Your task to perform on an android device: Look up the best rated bike seats on Target Image 0: 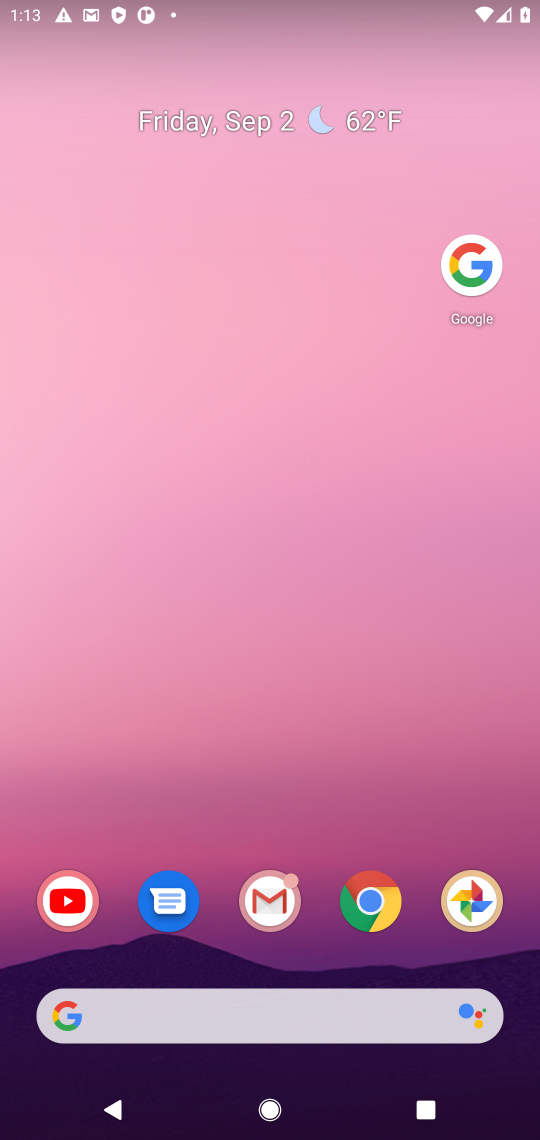
Step 0: click (267, 319)
Your task to perform on an android device: Look up the best rated bike seats on Target Image 1: 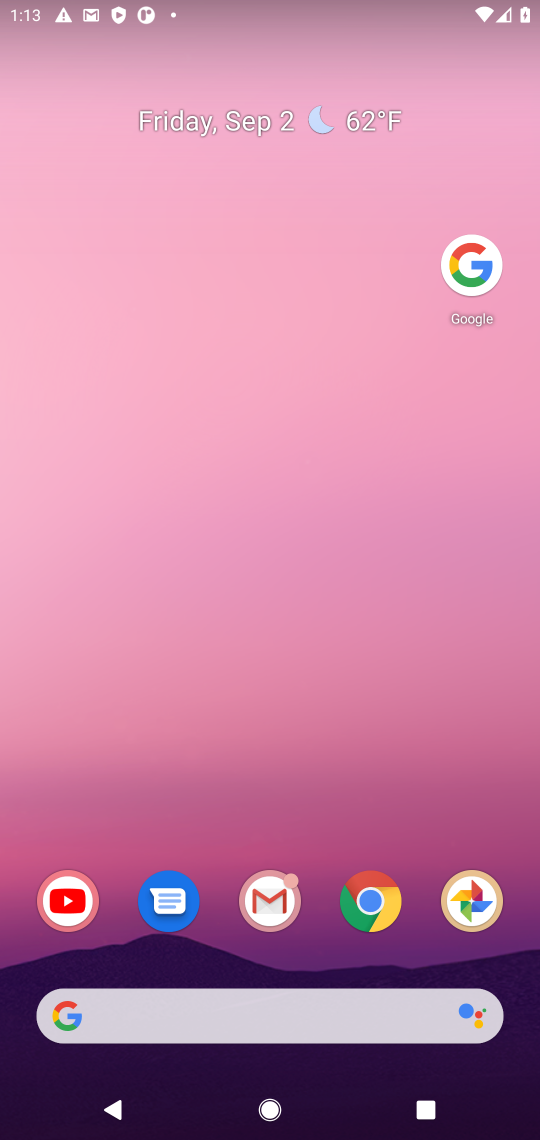
Step 1: click (479, 247)
Your task to perform on an android device: Look up the best rated bike seats on Target Image 2: 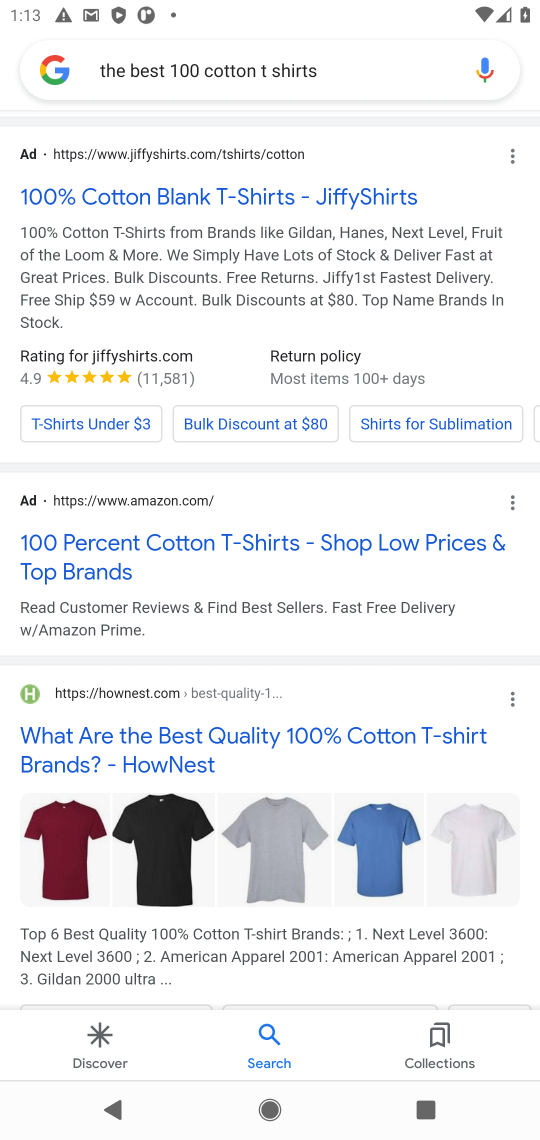
Step 2: click (375, 64)
Your task to perform on an android device: Look up the best rated bike seats on Target Image 3: 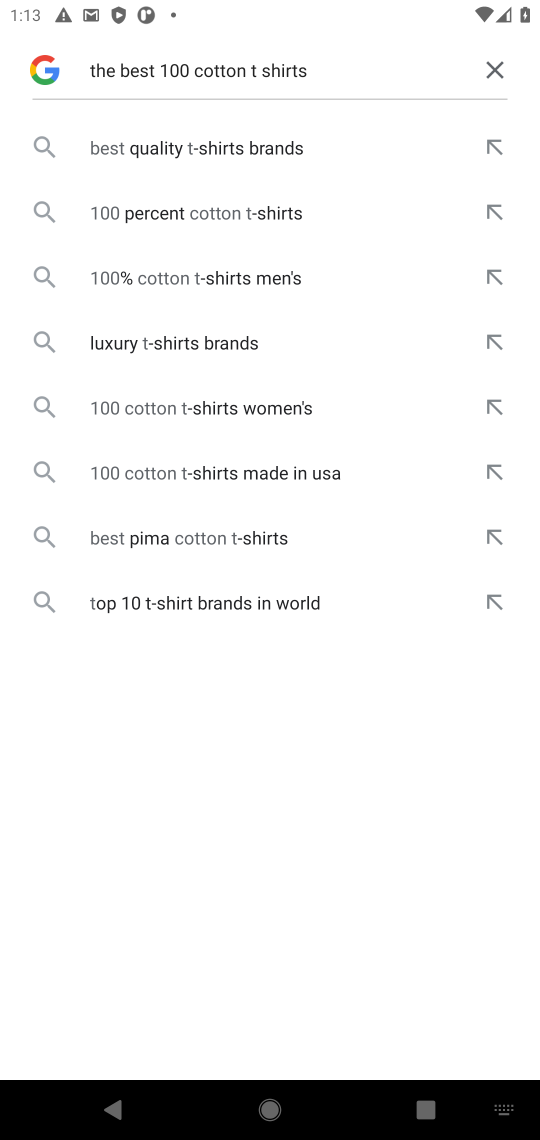
Step 3: click (513, 68)
Your task to perform on an android device: Look up the best rated bike seats on Target Image 4: 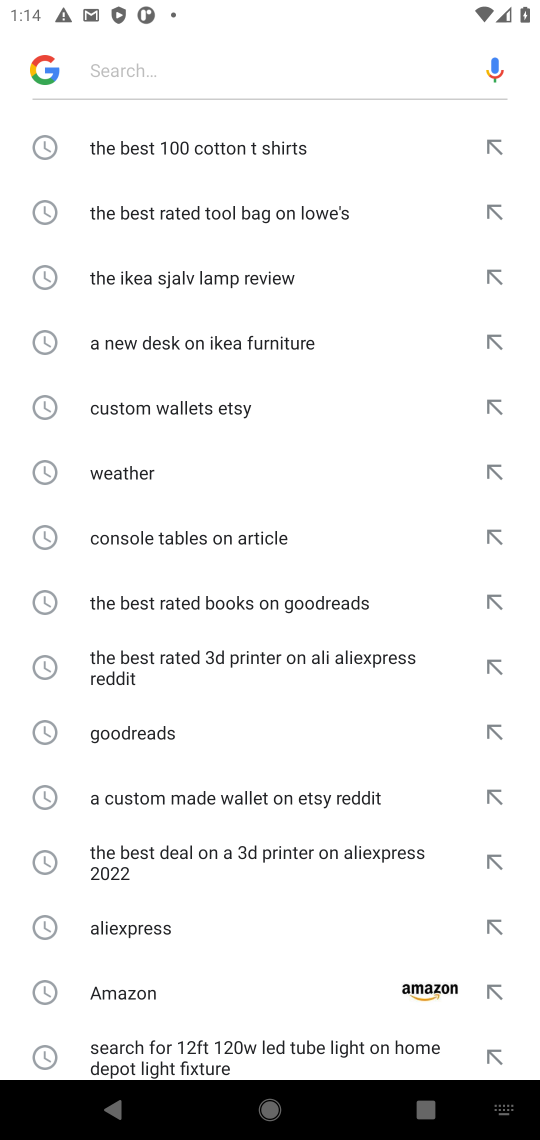
Step 4: click (310, 71)
Your task to perform on an android device: Look up the best rated bike seats on Target Image 5: 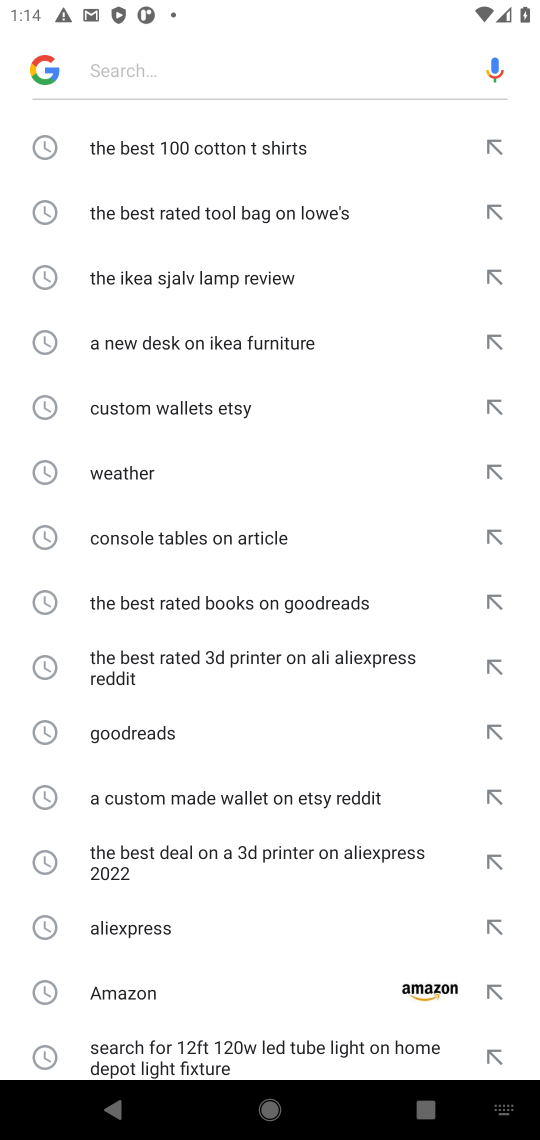
Step 5: type "the best rated bike seats on Target "
Your task to perform on an android device: Look up the best rated bike seats on Target Image 6: 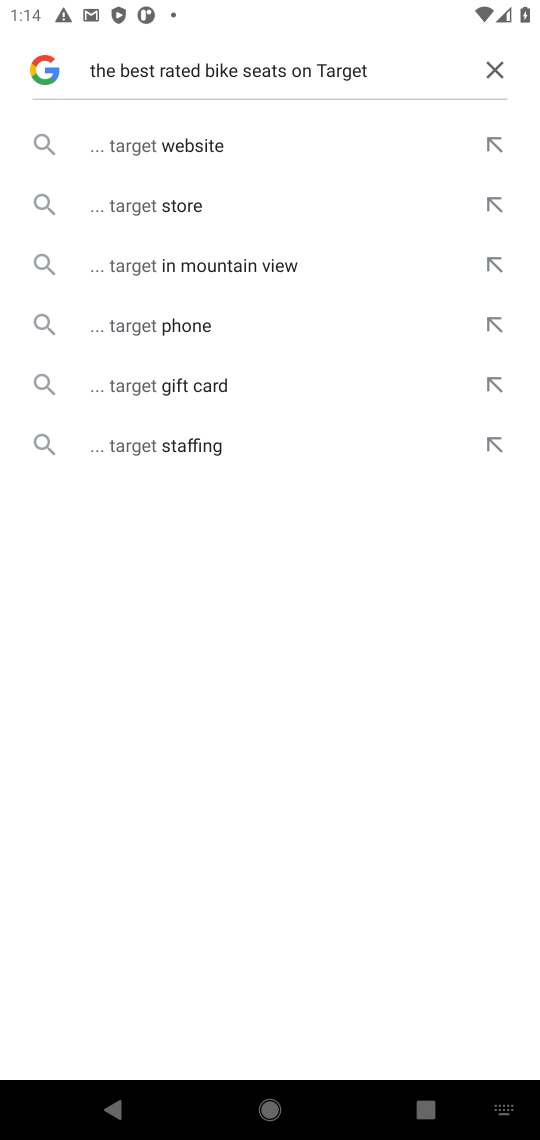
Step 6: click (196, 215)
Your task to perform on an android device: Look up the best rated bike seats on Target Image 7: 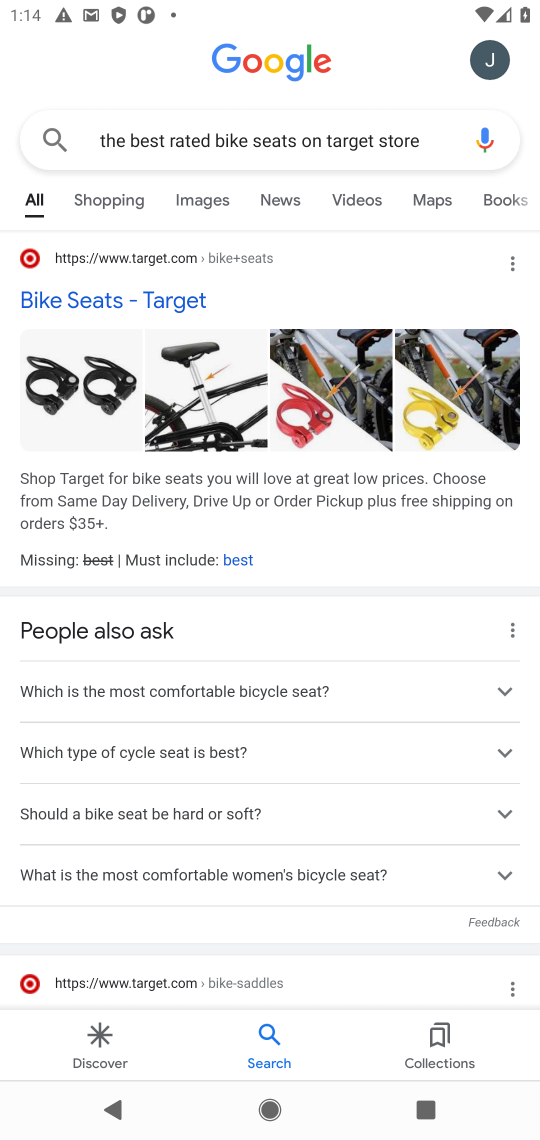
Step 7: drag from (185, 901) to (194, 786)
Your task to perform on an android device: Look up the best rated bike seats on Target Image 8: 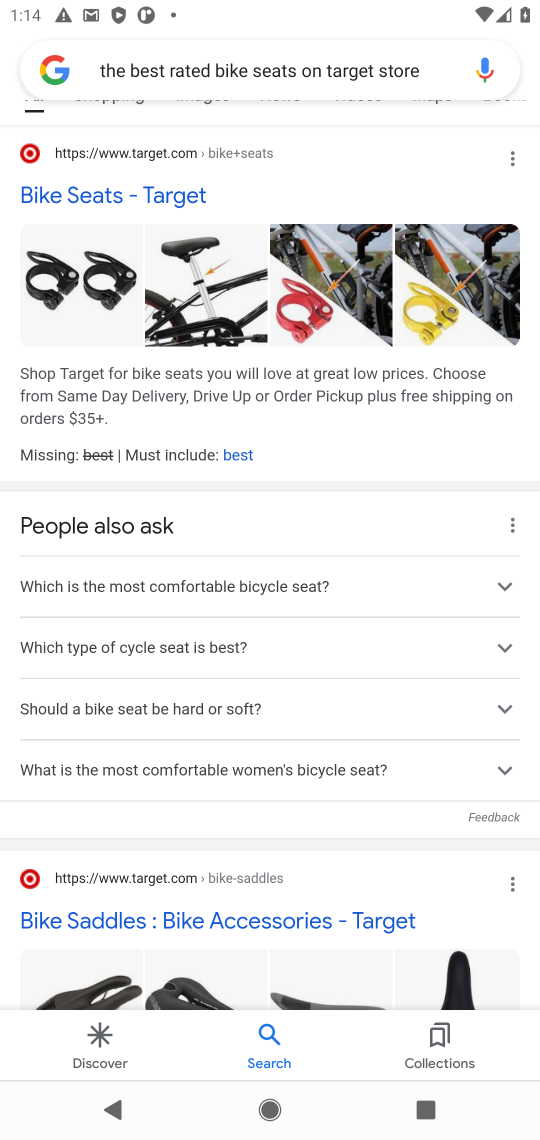
Step 8: click (145, 193)
Your task to perform on an android device: Look up the best rated bike seats on Target Image 9: 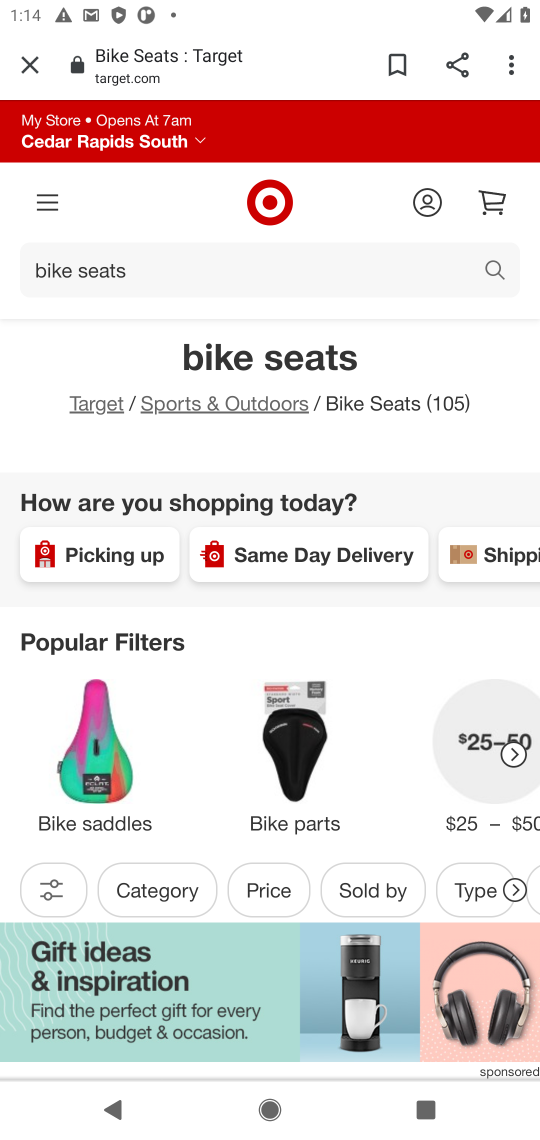
Step 9: task complete